Your task to perform on an android device: refresh tabs in the chrome app Image 0: 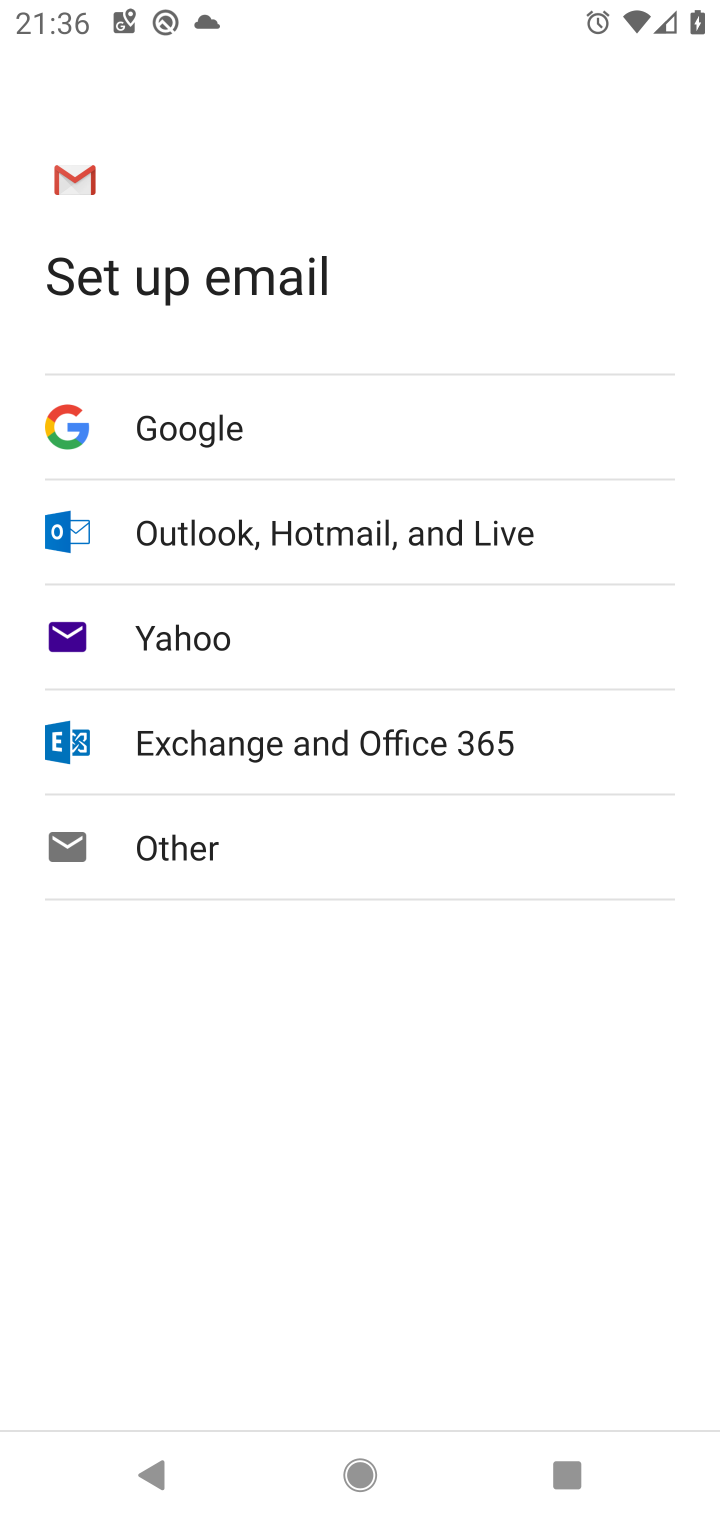
Step 0: press home button
Your task to perform on an android device: refresh tabs in the chrome app Image 1: 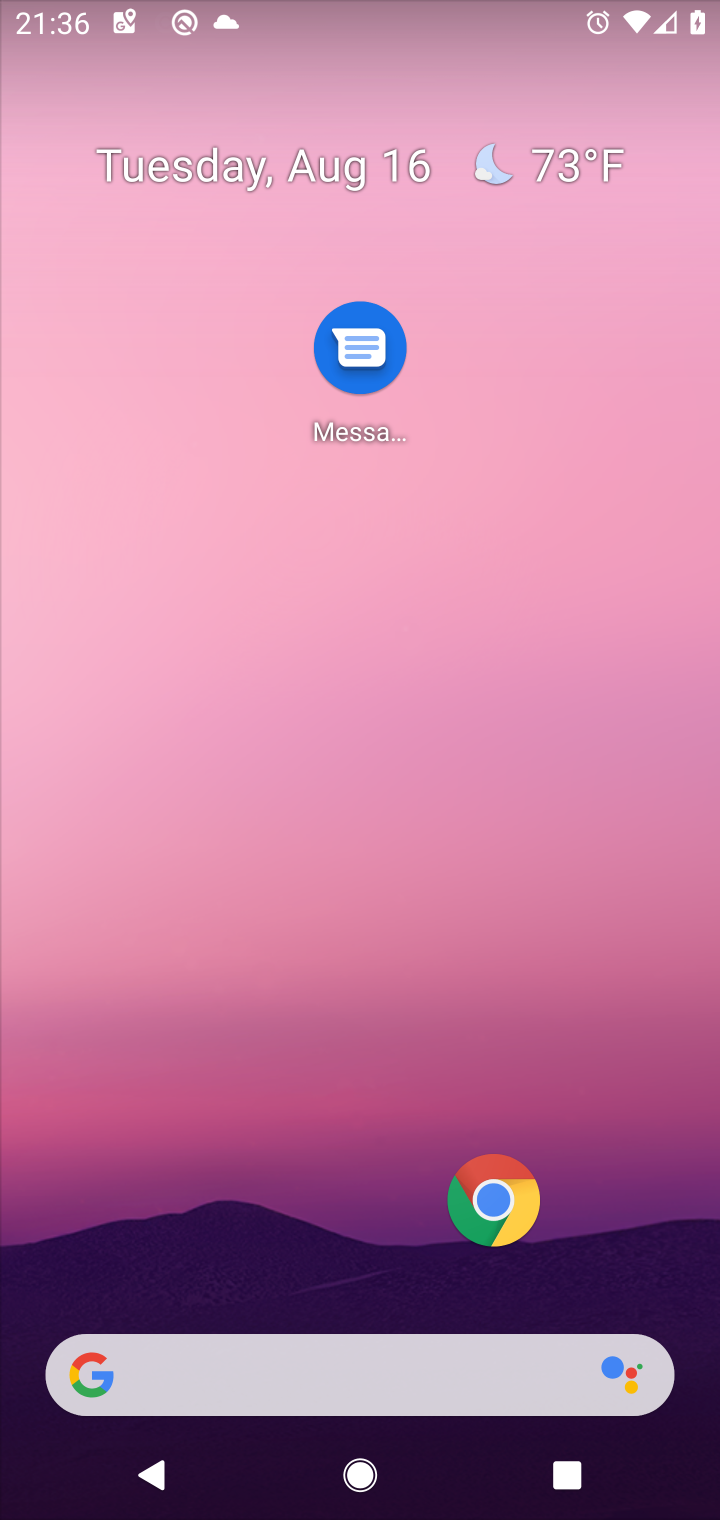
Step 1: click (500, 1195)
Your task to perform on an android device: refresh tabs in the chrome app Image 2: 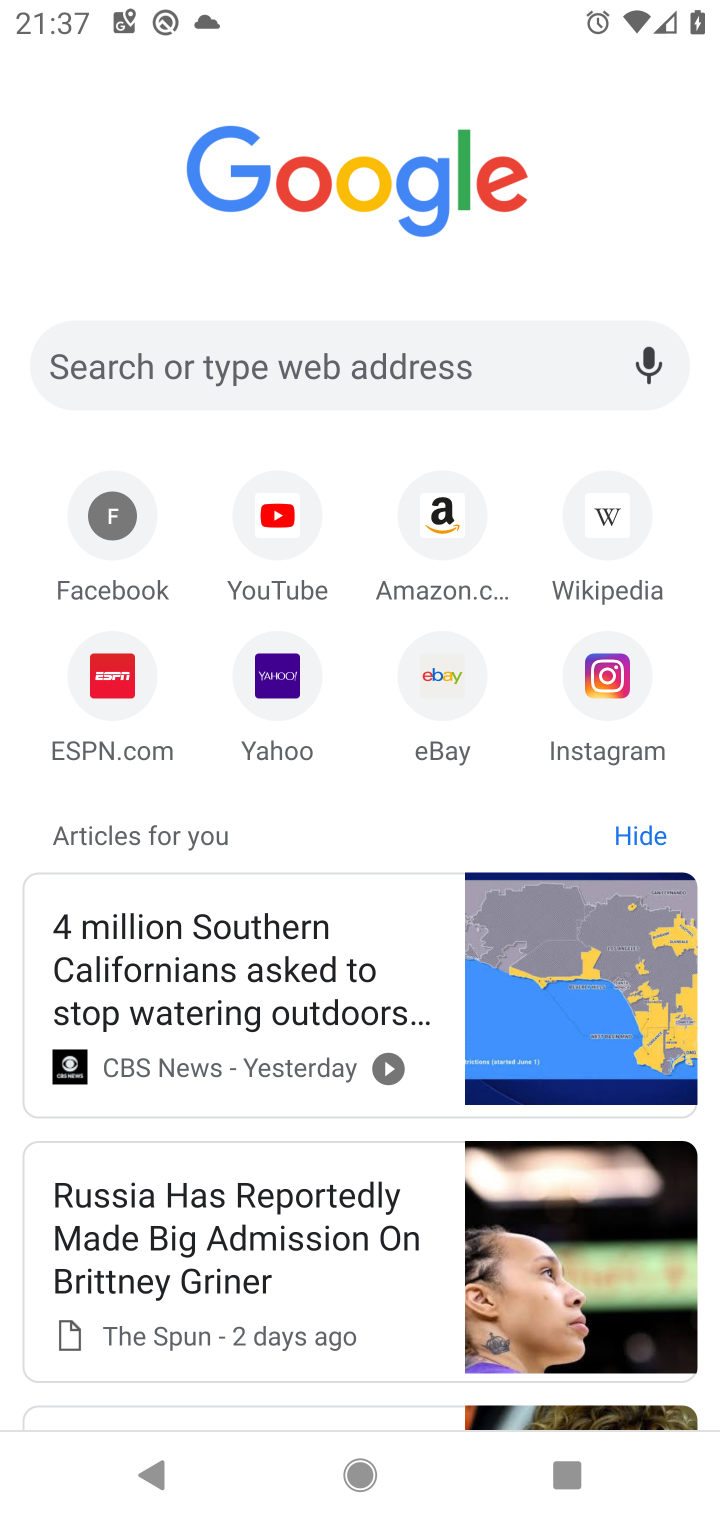
Step 2: click (451, 388)
Your task to perform on an android device: refresh tabs in the chrome app Image 3: 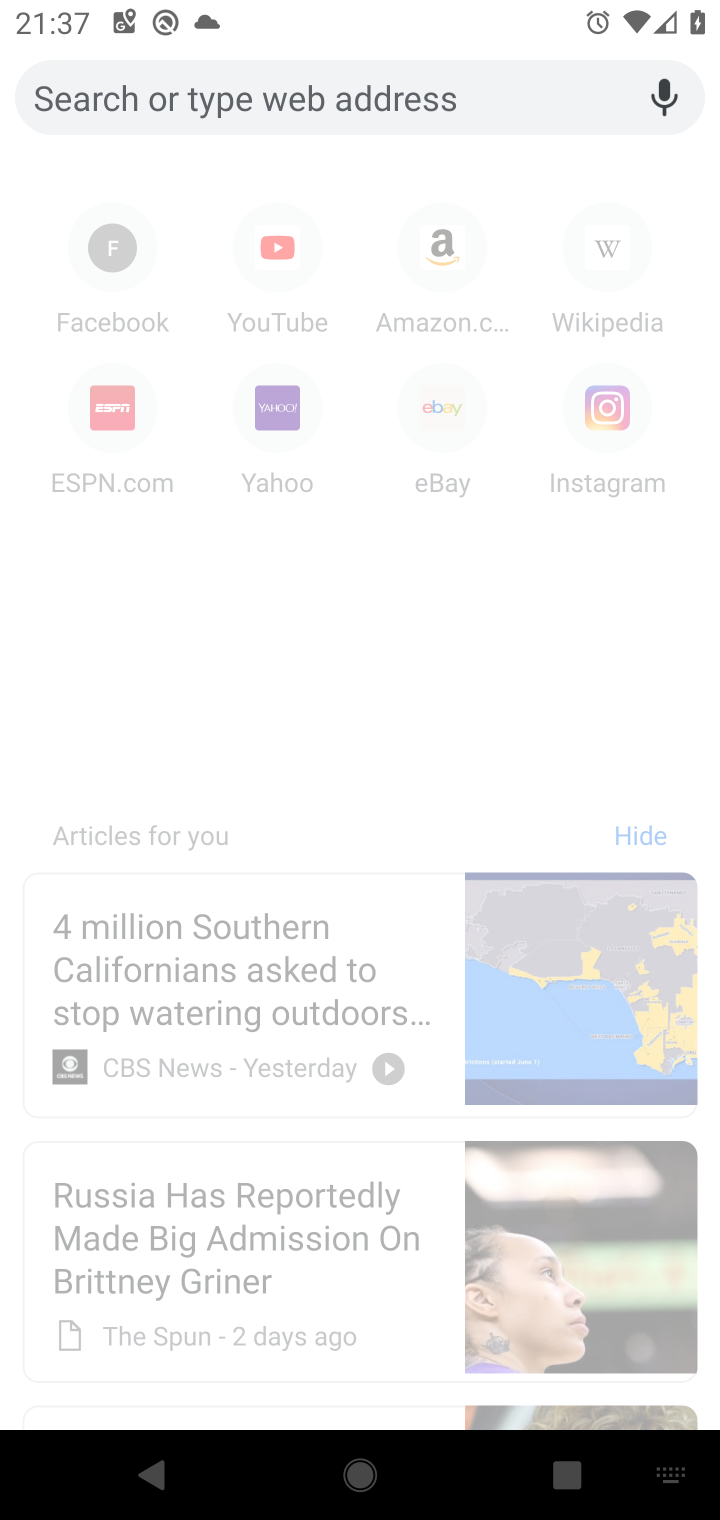
Step 3: task complete